Your task to perform on an android device: set the stopwatch Image 0: 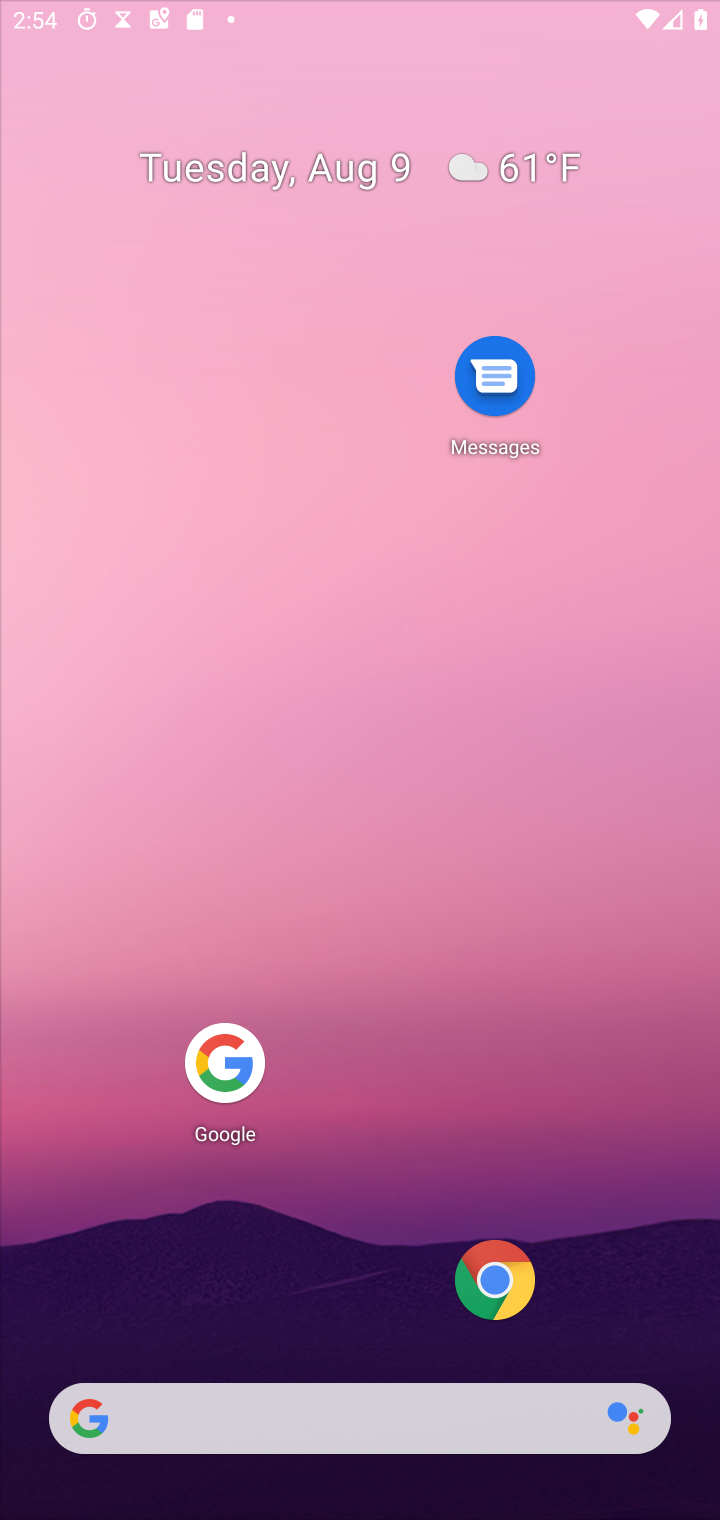
Step 0: press home button
Your task to perform on an android device: set the stopwatch Image 1: 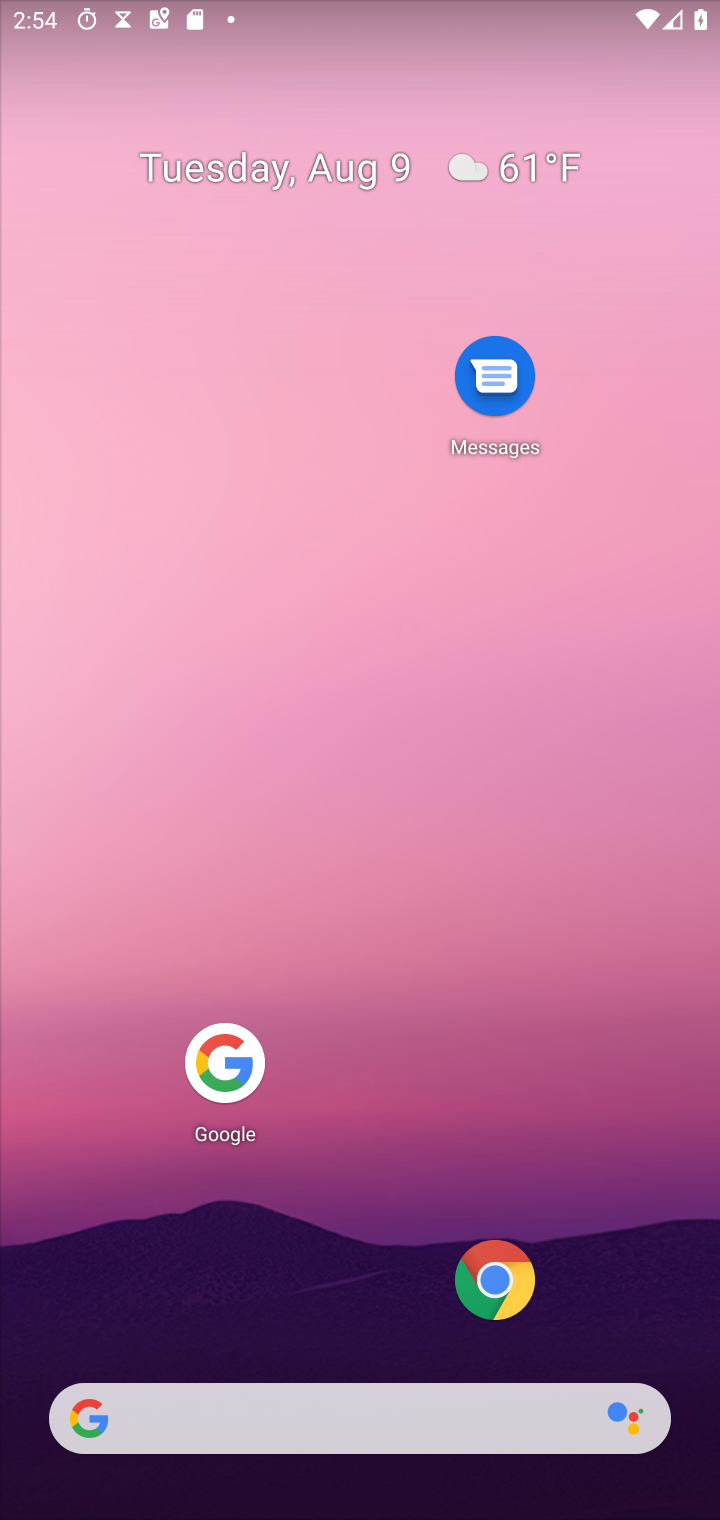
Step 1: drag from (391, 1413) to (475, 444)
Your task to perform on an android device: set the stopwatch Image 2: 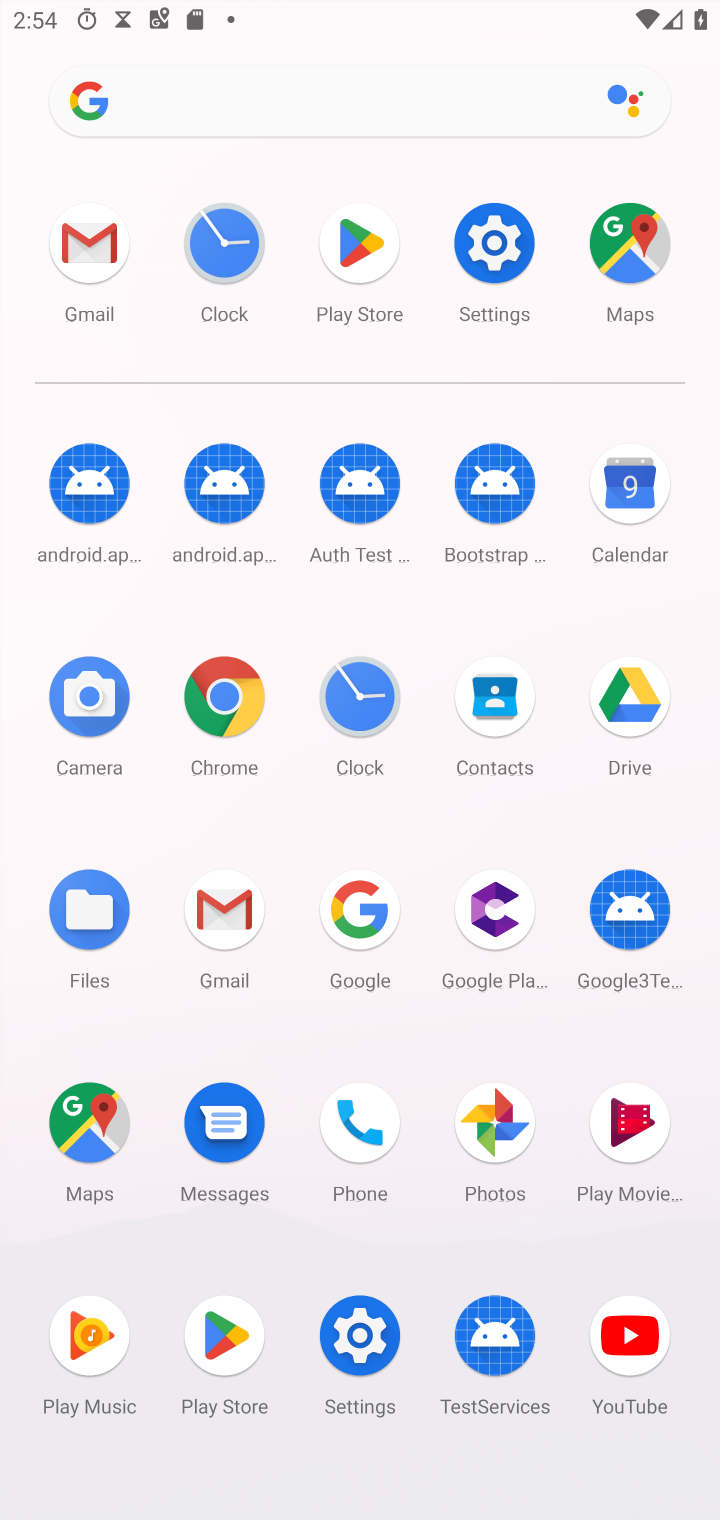
Step 2: click (363, 682)
Your task to perform on an android device: set the stopwatch Image 3: 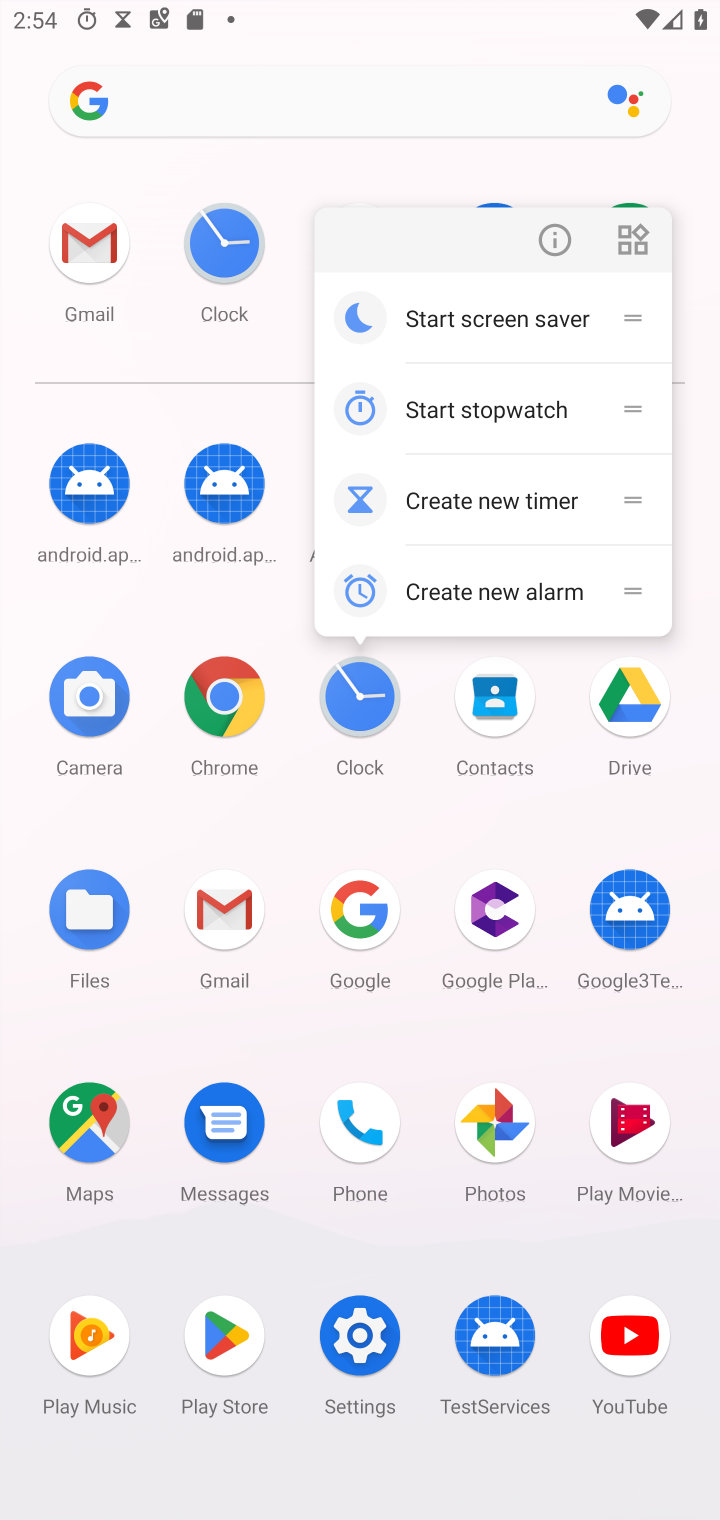
Step 3: click (360, 682)
Your task to perform on an android device: set the stopwatch Image 4: 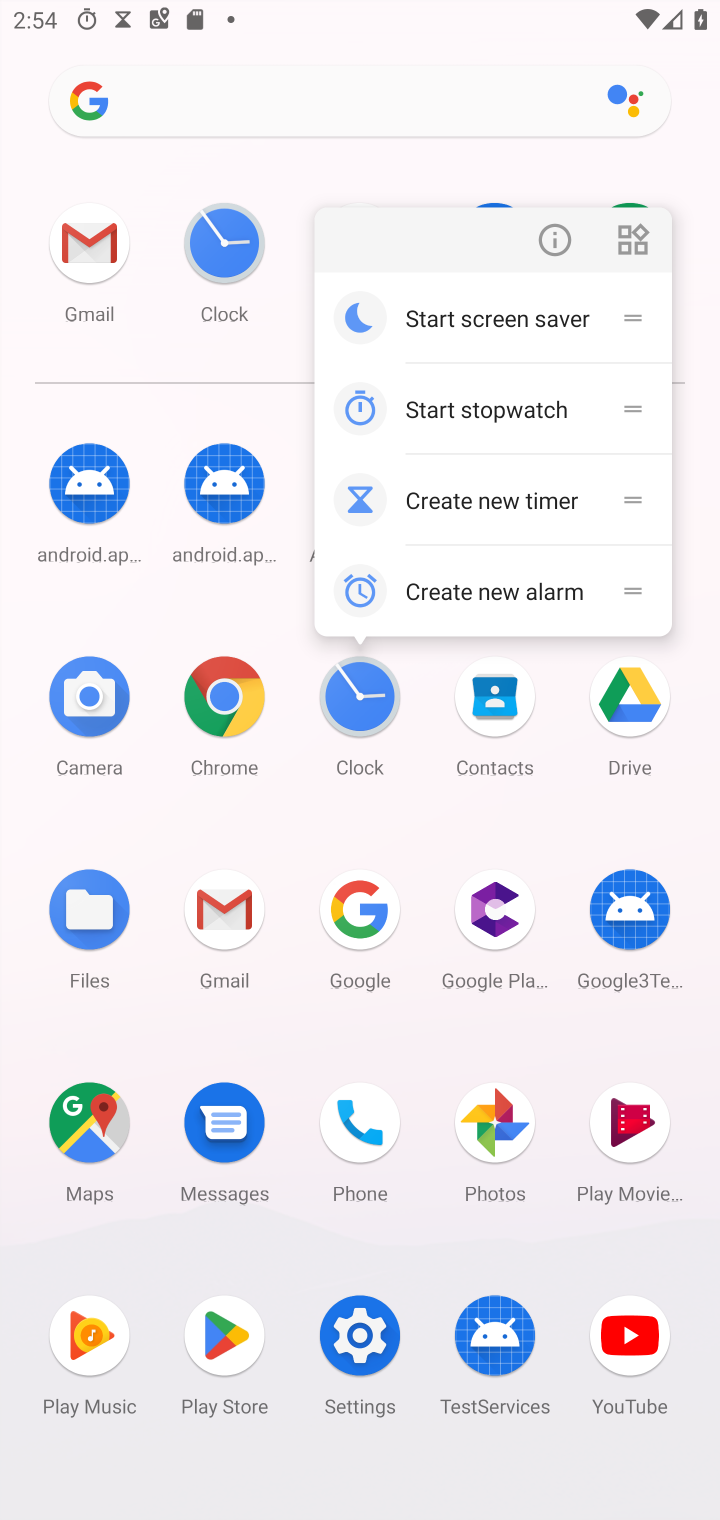
Step 4: click (360, 680)
Your task to perform on an android device: set the stopwatch Image 5: 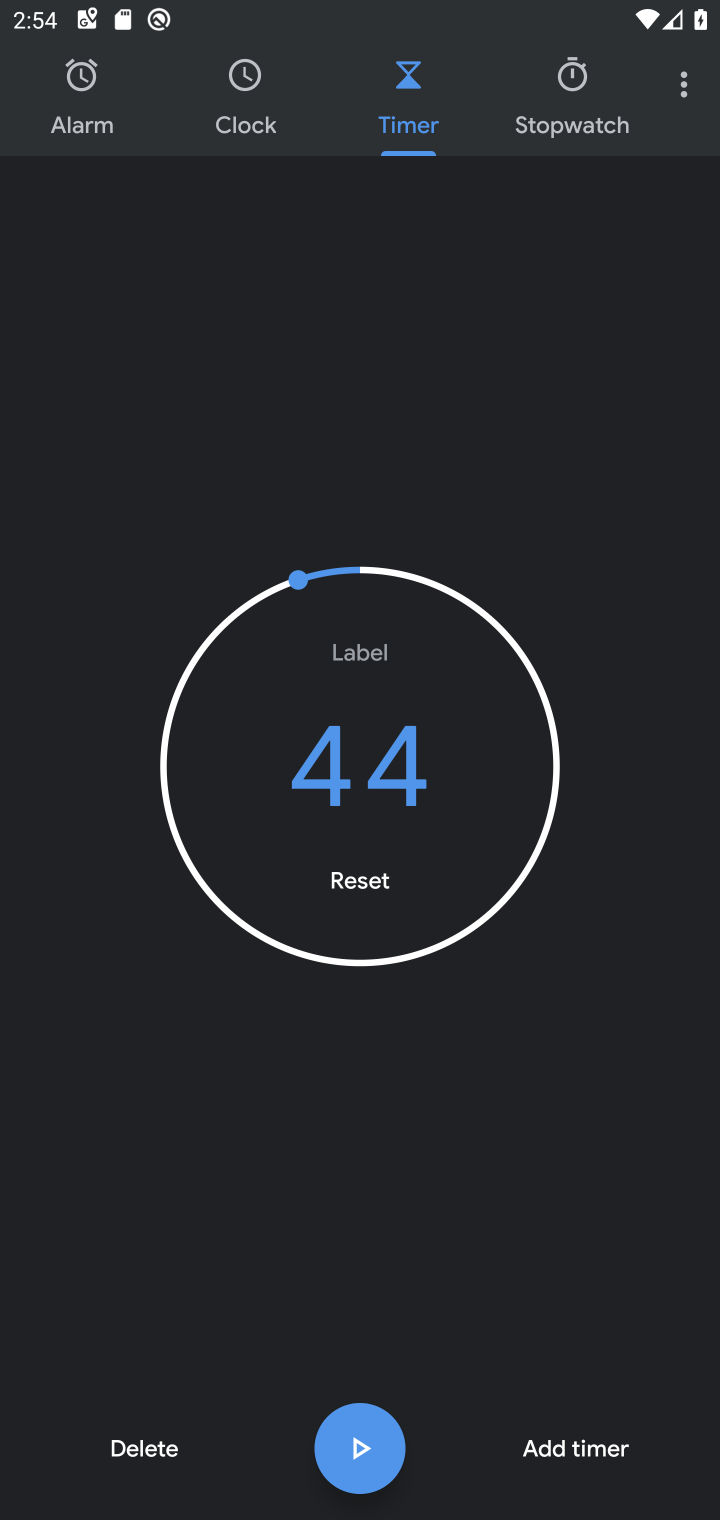
Step 5: click (530, 88)
Your task to perform on an android device: set the stopwatch Image 6: 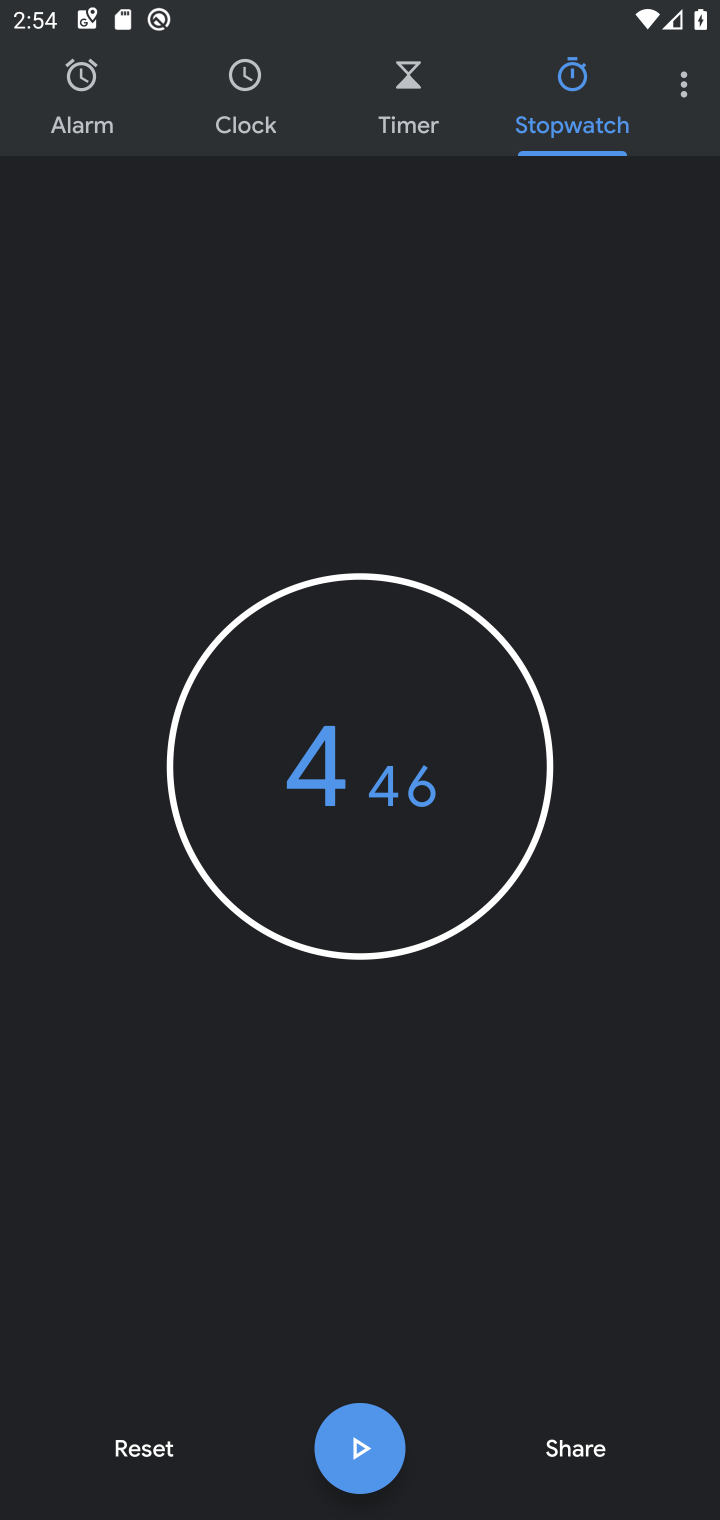
Step 6: click (161, 1449)
Your task to perform on an android device: set the stopwatch Image 7: 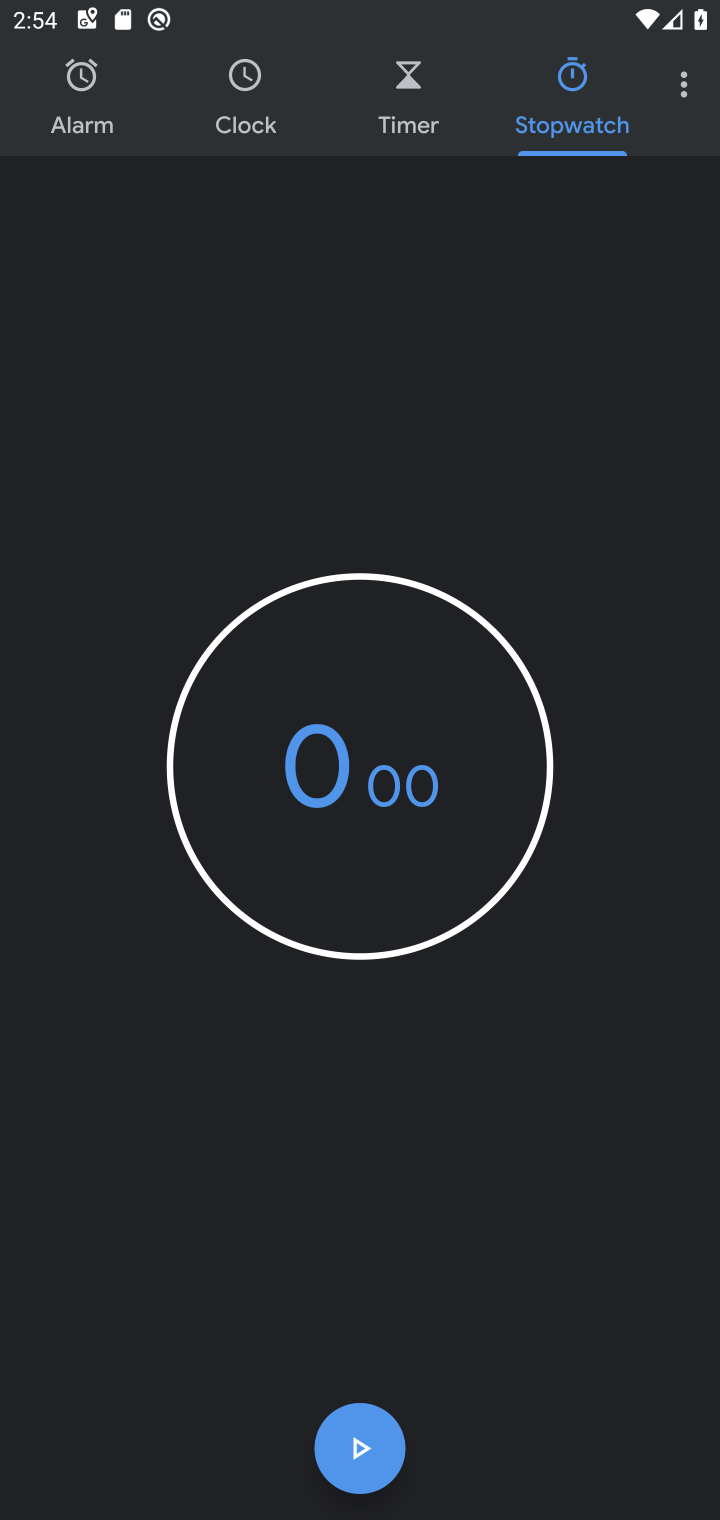
Step 7: click (364, 780)
Your task to perform on an android device: set the stopwatch Image 8: 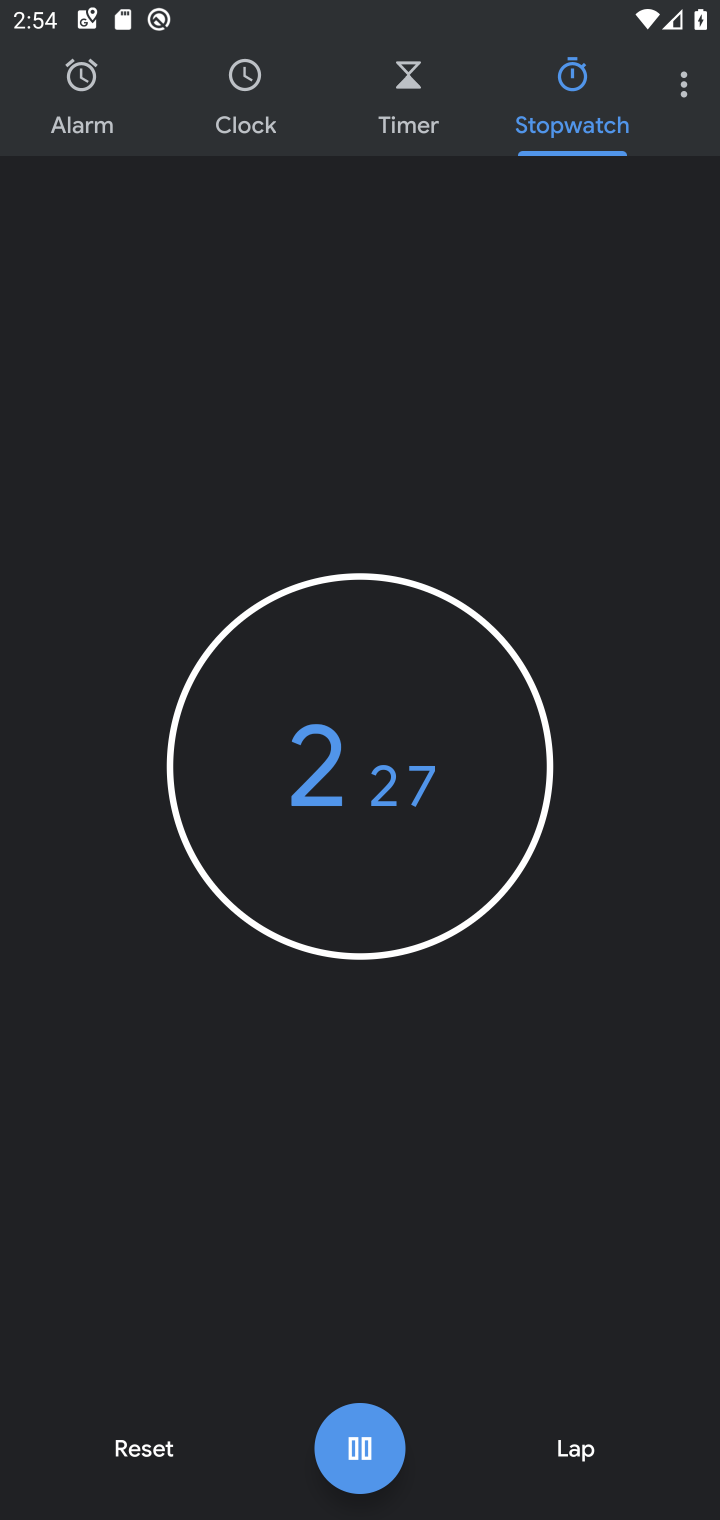
Step 8: click (369, 778)
Your task to perform on an android device: set the stopwatch Image 9: 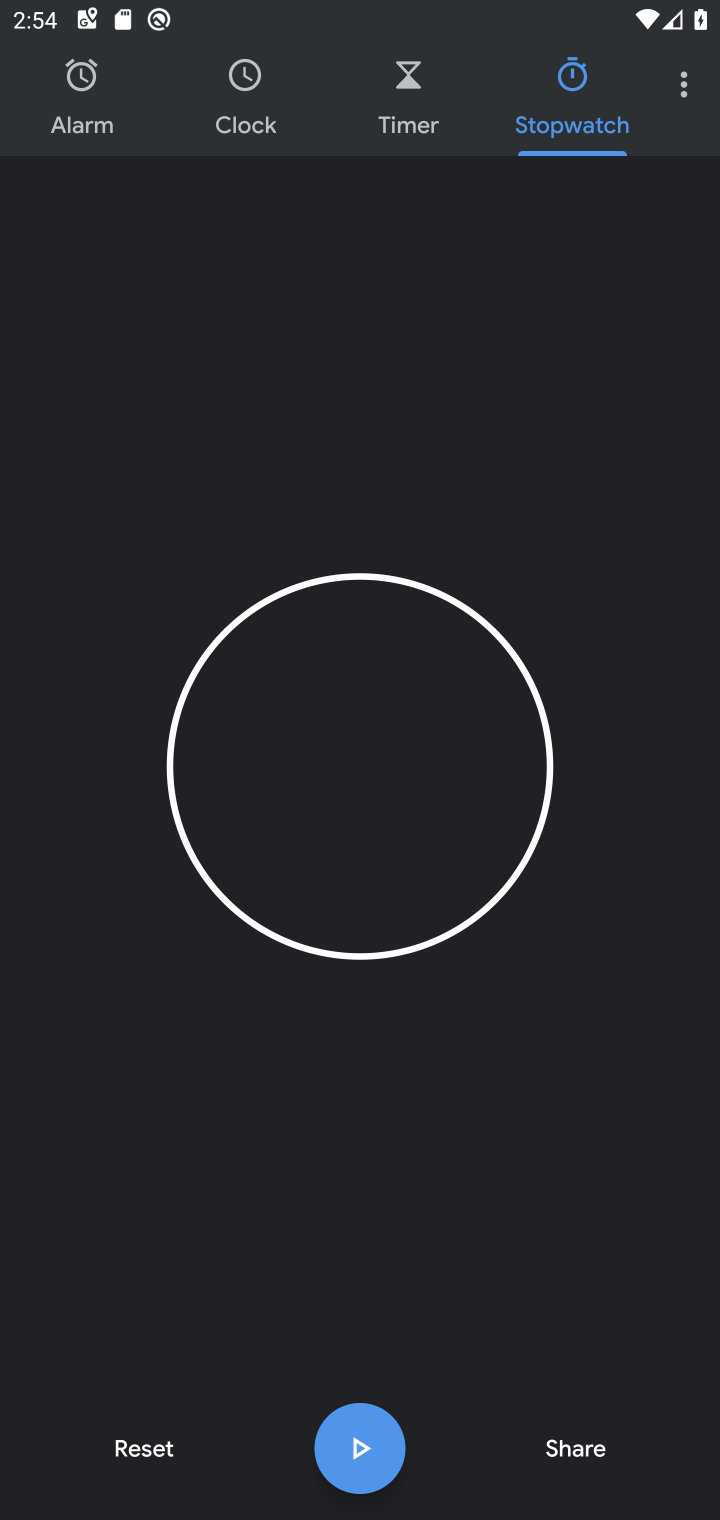
Step 9: task complete